Your task to perform on an android device: Open Wikipedia Image 0: 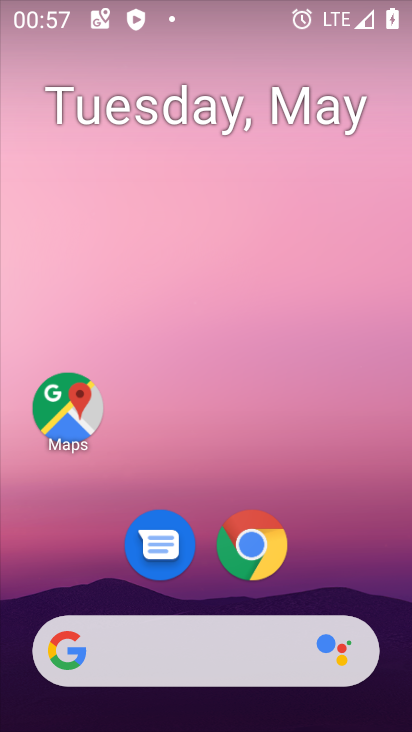
Step 0: click (257, 536)
Your task to perform on an android device: Open Wikipedia Image 1: 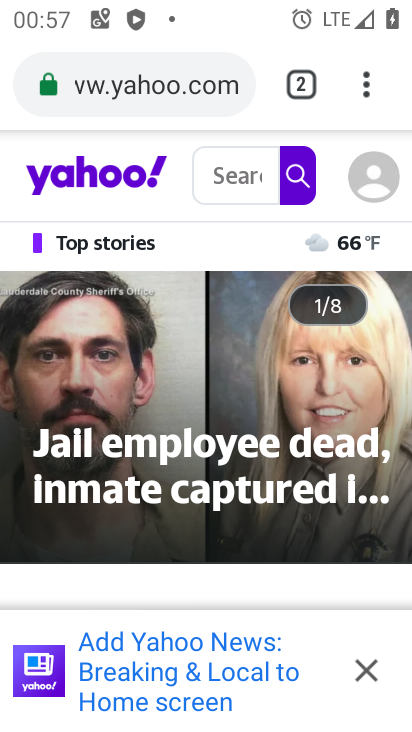
Step 1: click (139, 94)
Your task to perform on an android device: Open Wikipedia Image 2: 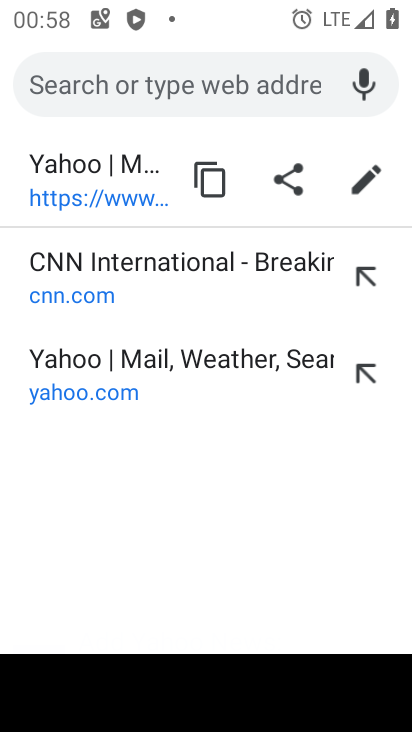
Step 2: type "wikipedia"
Your task to perform on an android device: Open Wikipedia Image 3: 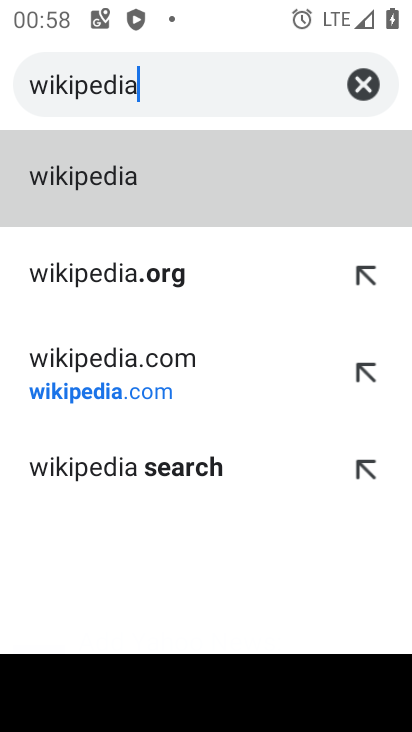
Step 3: click (64, 186)
Your task to perform on an android device: Open Wikipedia Image 4: 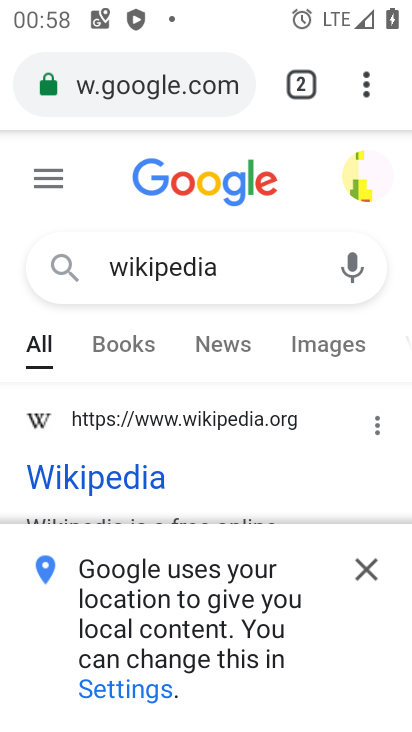
Step 4: click (141, 481)
Your task to perform on an android device: Open Wikipedia Image 5: 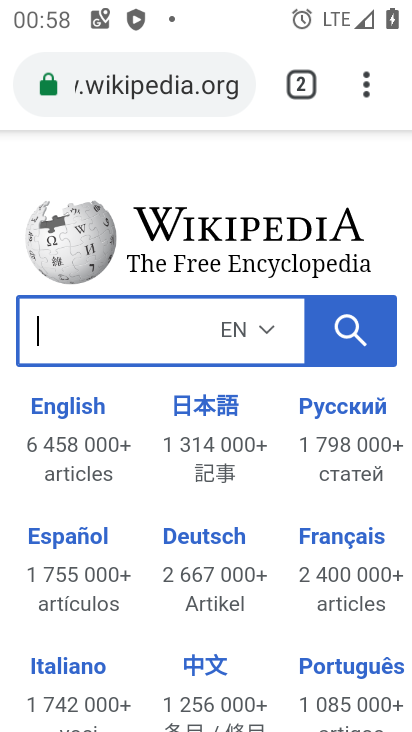
Step 5: task complete